Your task to perform on an android device: check storage Image 0: 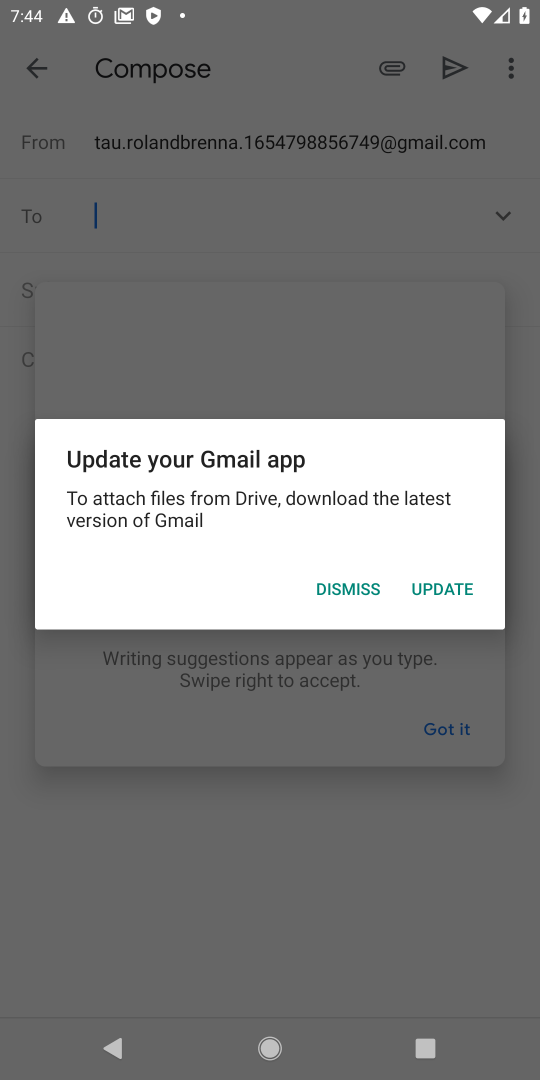
Step 0: press home button
Your task to perform on an android device: check storage Image 1: 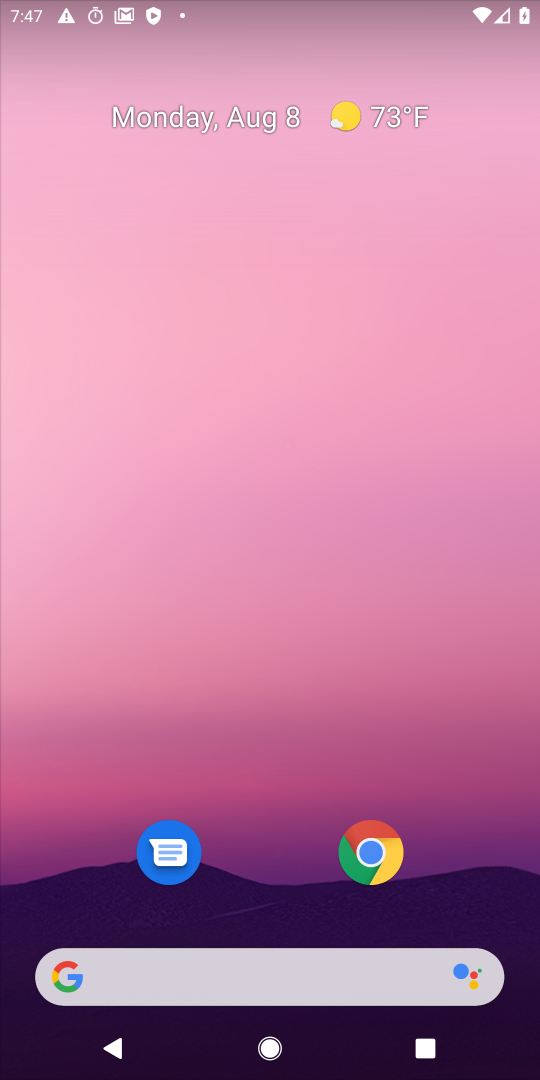
Step 1: drag from (31, 968) to (271, 156)
Your task to perform on an android device: check storage Image 2: 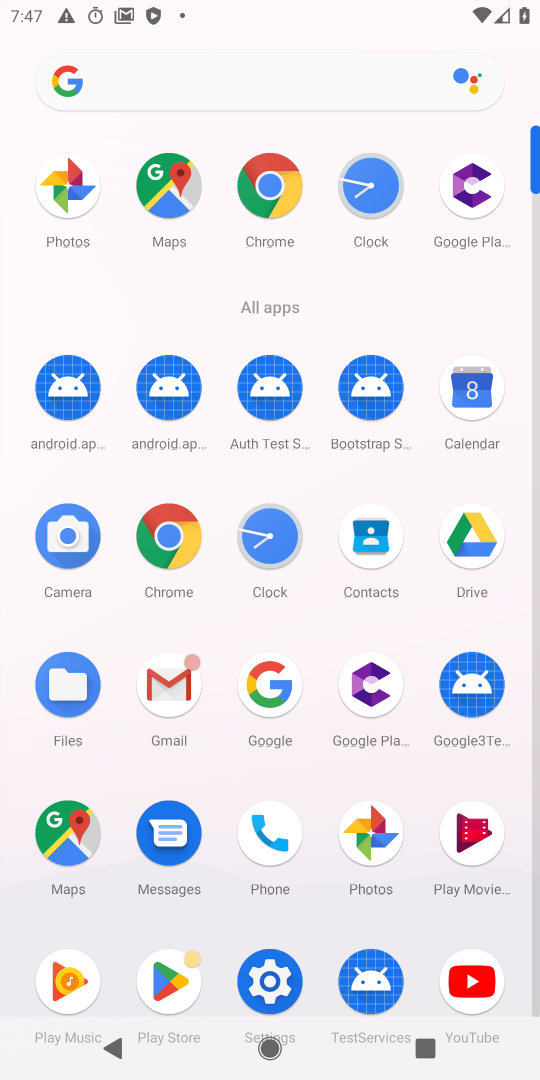
Step 2: click (250, 986)
Your task to perform on an android device: check storage Image 3: 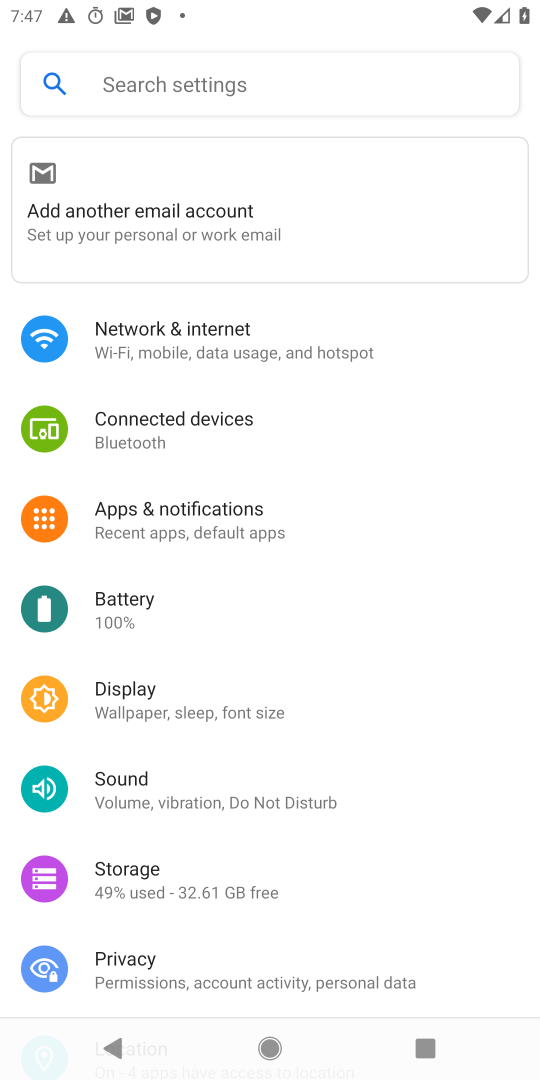
Step 3: click (126, 865)
Your task to perform on an android device: check storage Image 4: 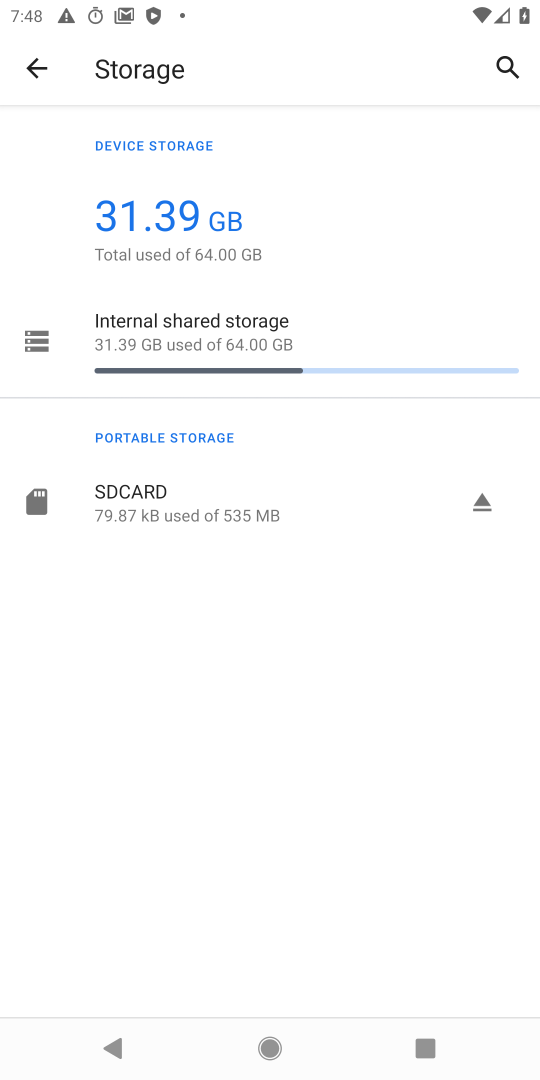
Step 4: task complete